Your task to perform on an android device: Open wifi settings Image 0: 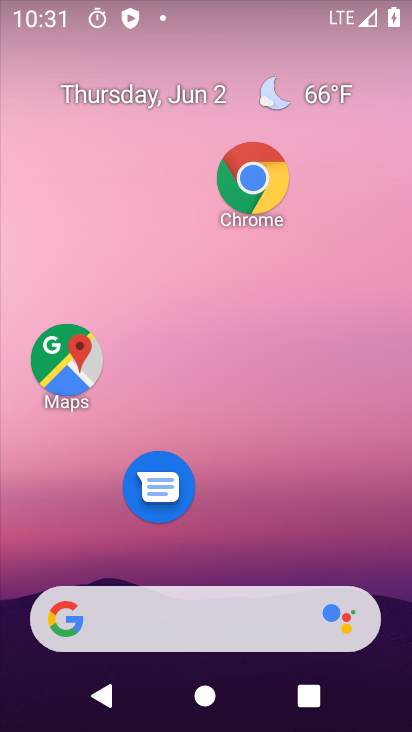
Step 0: drag from (232, 730) to (232, 104)
Your task to perform on an android device: Open wifi settings Image 1: 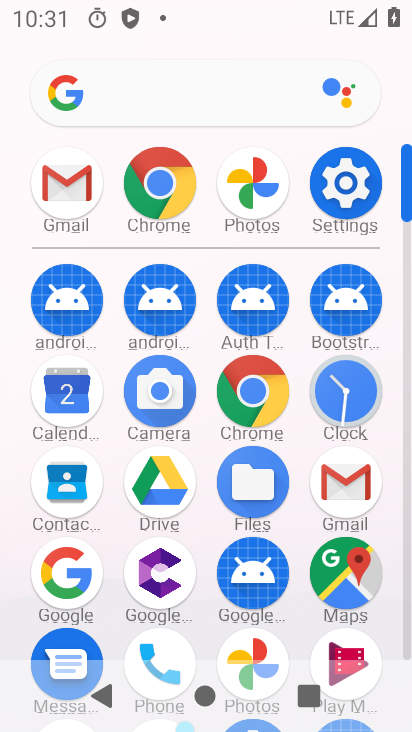
Step 1: click (353, 174)
Your task to perform on an android device: Open wifi settings Image 2: 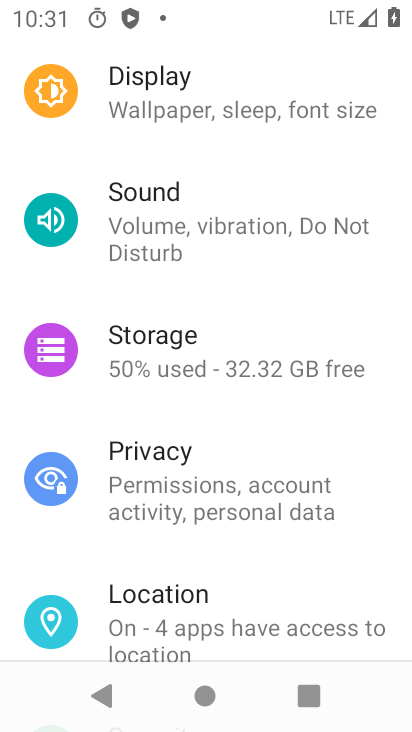
Step 2: drag from (238, 93) to (259, 621)
Your task to perform on an android device: Open wifi settings Image 3: 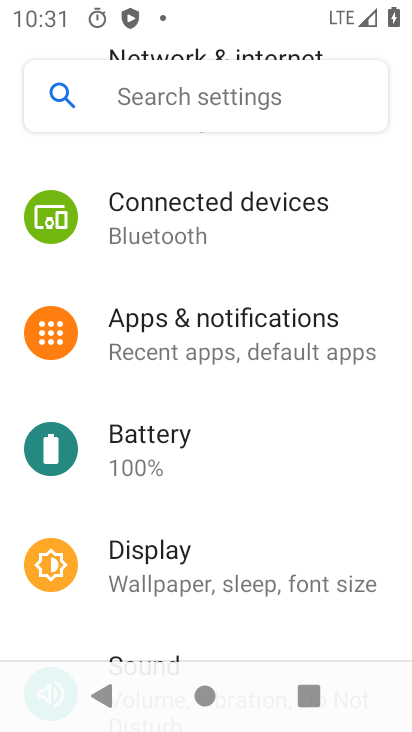
Step 3: drag from (208, 171) to (225, 615)
Your task to perform on an android device: Open wifi settings Image 4: 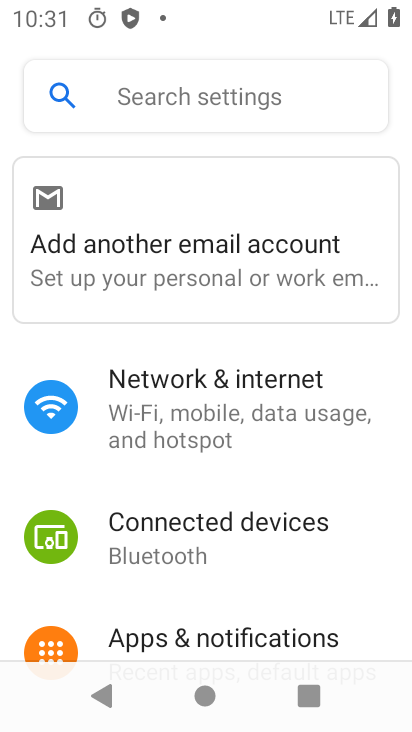
Step 4: click (152, 395)
Your task to perform on an android device: Open wifi settings Image 5: 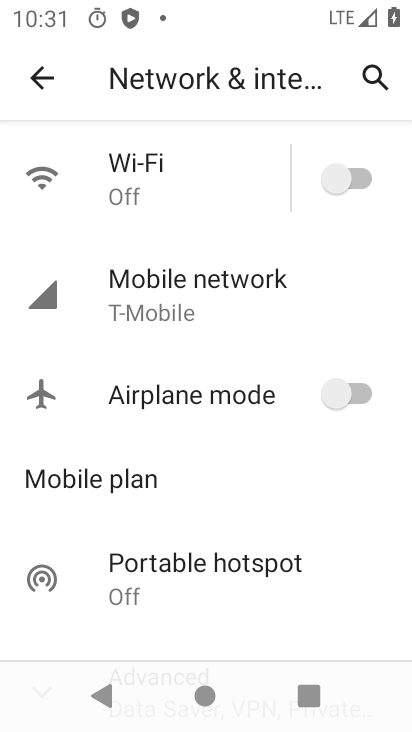
Step 5: click (125, 170)
Your task to perform on an android device: Open wifi settings Image 6: 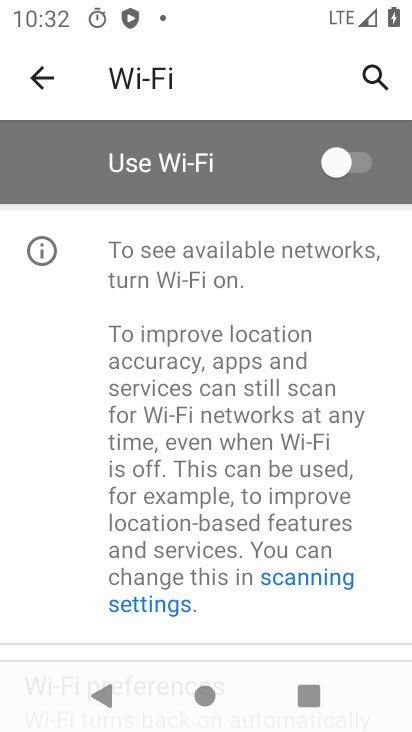
Step 6: task complete